Your task to perform on an android device: change notification settings in the gmail app Image 0: 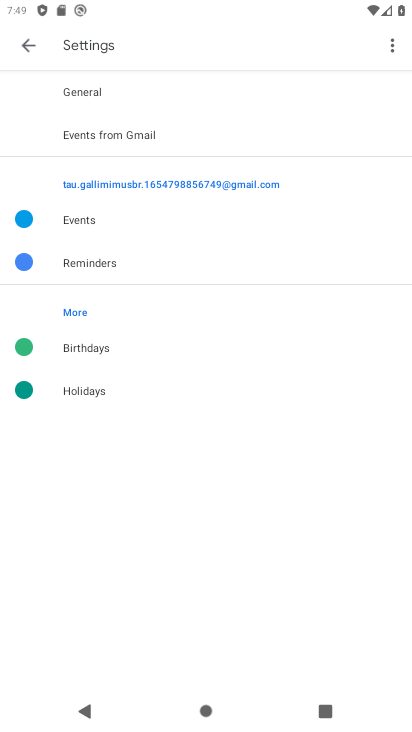
Step 0: press home button
Your task to perform on an android device: change notification settings in the gmail app Image 1: 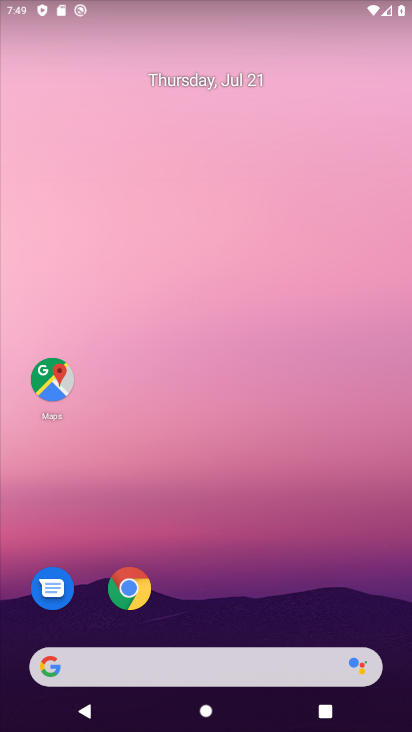
Step 1: drag from (266, 539) to (263, 150)
Your task to perform on an android device: change notification settings in the gmail app Image 2: 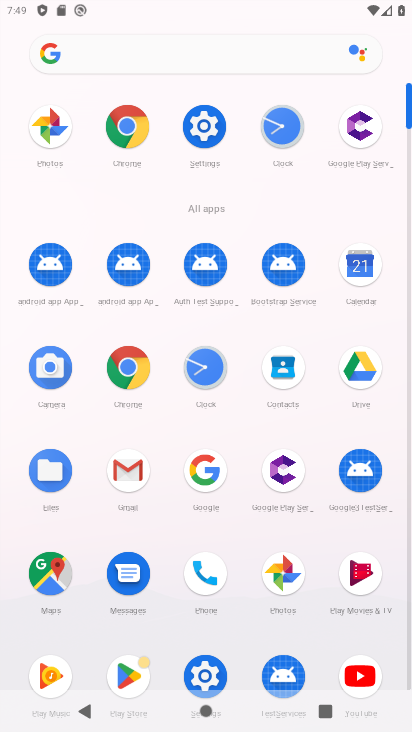
Step 2: click (132, 471)
Your task to perform on an android device: change notification settings in the gmail app Image 3: 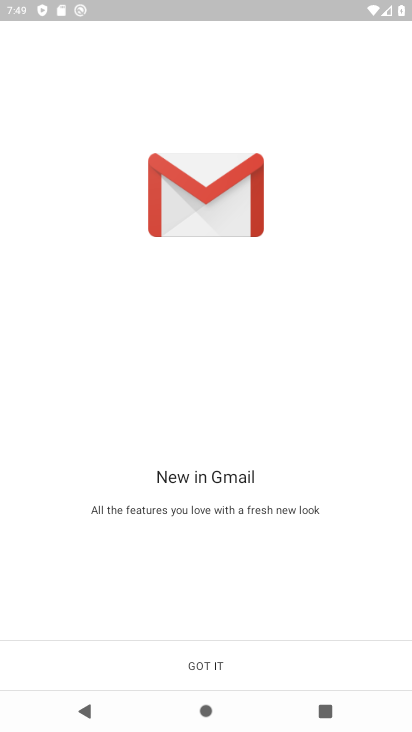
Step 3: click (214, 661)
Your task to perform on an android device: change notification settings in the gmail app Image 4: 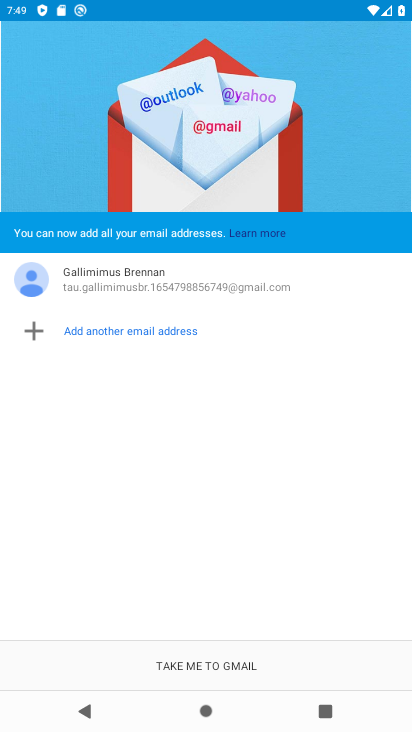
Step 4: click (214, 661)
Your task to perform on an android device: change notification settings in the gmail app Image 5: 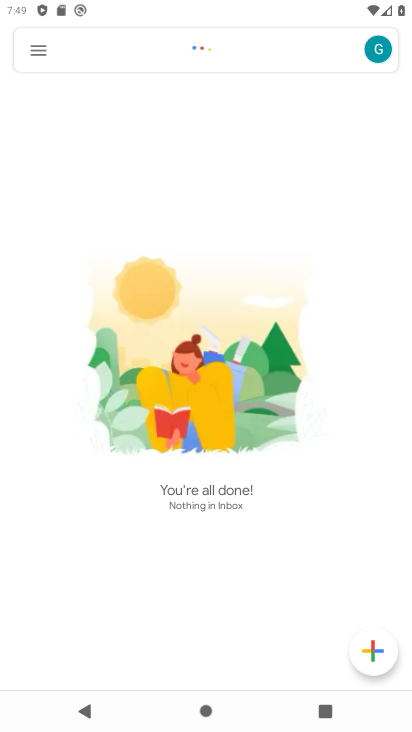
Step 5: click (31, 48)
Your task to perform on an android device: change notification settings in the gmail app Image 6: 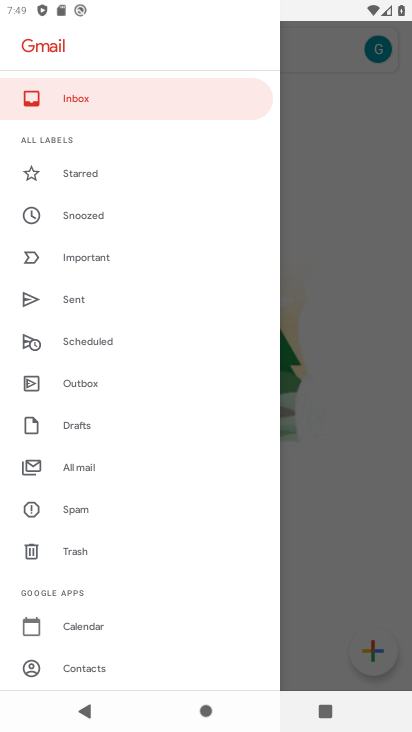
Step 6: drag from (157, 616) to (169, 302)
Your task to perform on an android device: change notification settings in the gmail app Image 7: 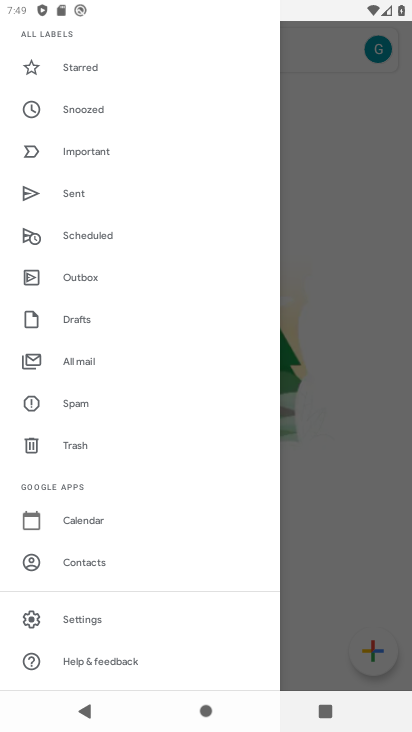
Step 7: click (86, 616)
Your task to perform on an android device: change notification settings in the gmail app Image 8: 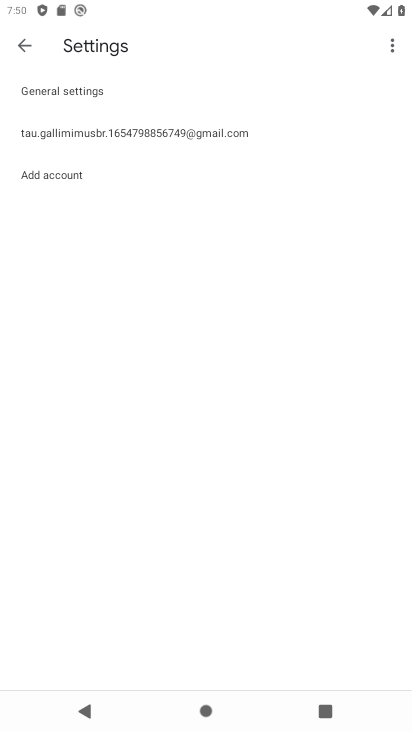
Step 8: click (62, 89)
Your task to perform on an android device: change notification settings in the gmail app Image 9: 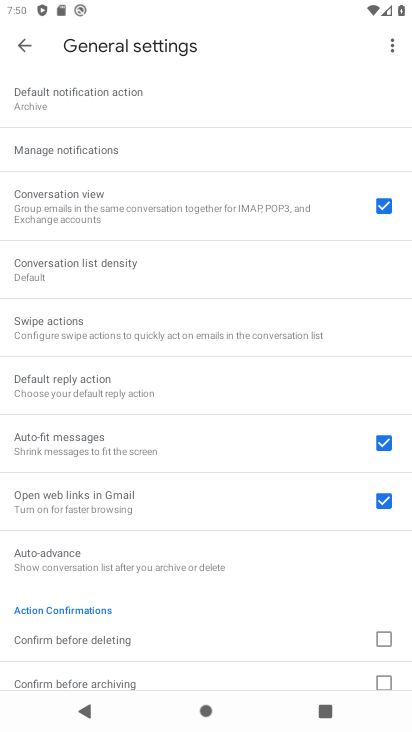
Step 9: click (62, 149)
Your task to perform on an android device: change notification settings in the gmail app Image 10: 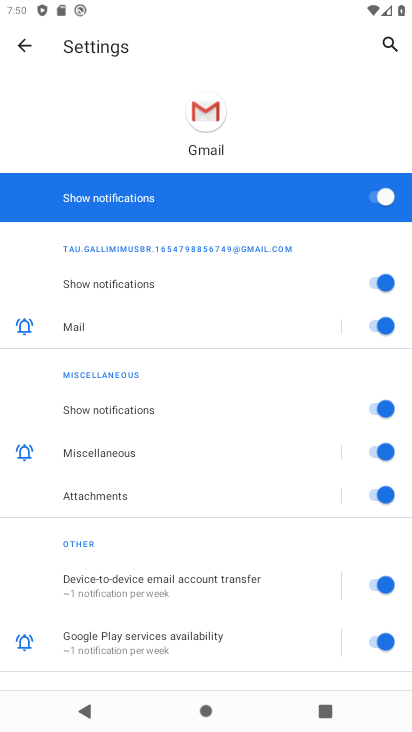
Step 10: click (379, 197)
Your task to perform on an android device: change notification settings in the gmail app Image 11: 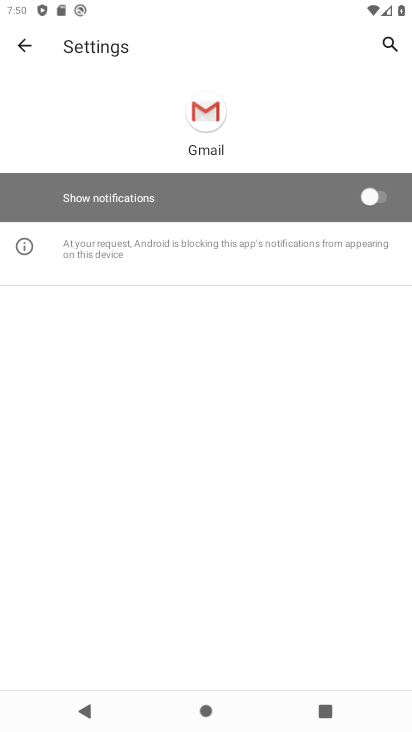
Step 11: task complete